Your task to perform on an android device: check android version Image 0: 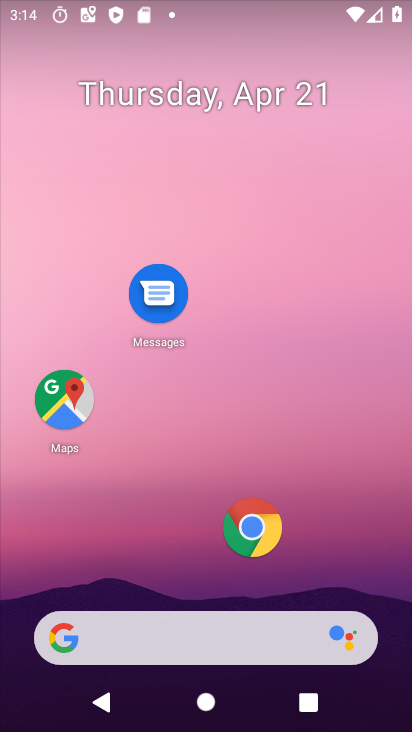
Step 0: drag from (191, 601) to (277, 365)
Your task to perform on an android device: check android version Image 1: 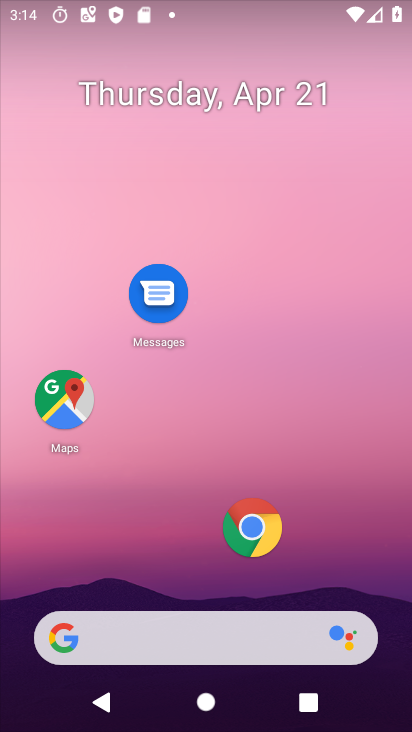
Step 1: drag from (230, 614) to (382, 100)
Your task to perform on an android device: check android version Image 2: 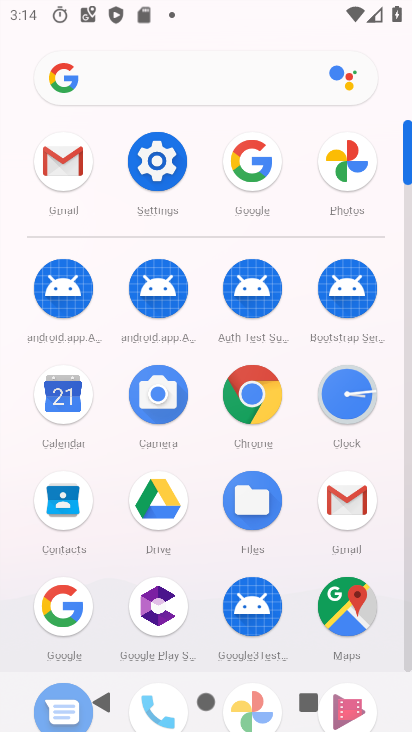
Step 2: click (164, 163)
Your task to perform on an android device: check android version Image 3: 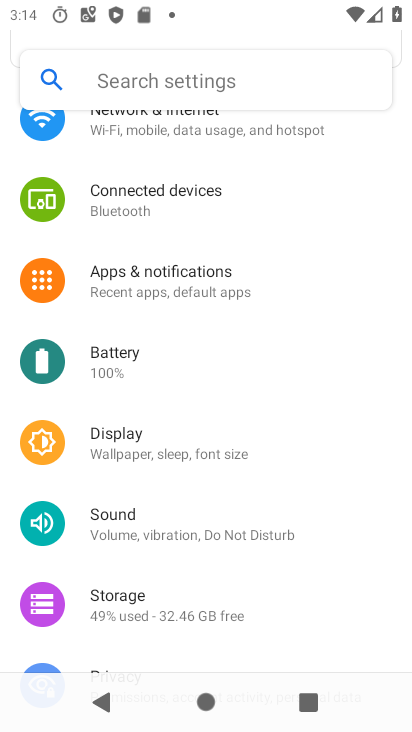
Step 3: drag from (184, 618) to (276, 281)
Your task to perform on an android device: check android version Image 4: 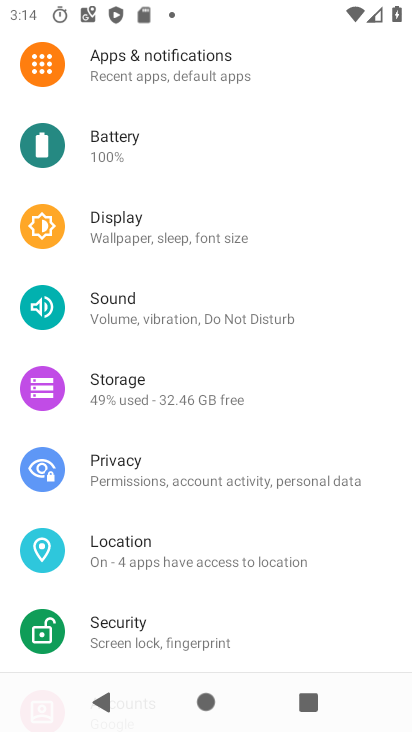
Step 4: drag from (208, 591) to (310, 267)
Your task to perform on an android device: check android version Image 5: 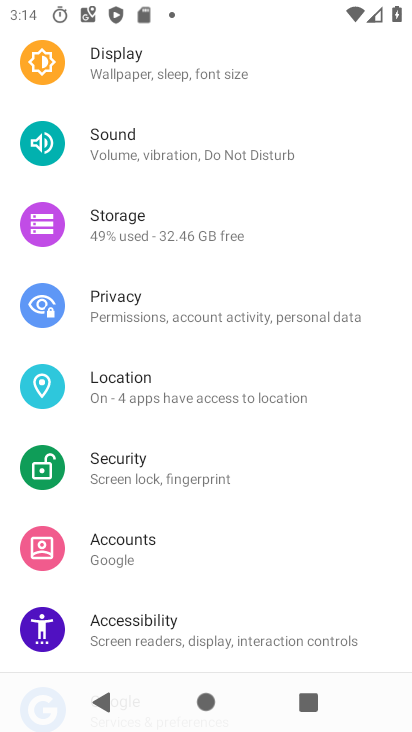
Step 5: drag from (240, 649) to (338, 327)
Your task to perform on an android device: check android version Image 6: 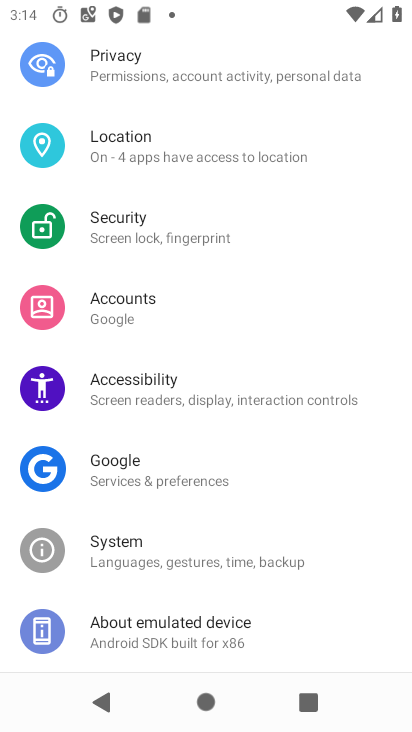
Step 6: click (222, 642)
Your task to perform on an android device: check android version Image 7: 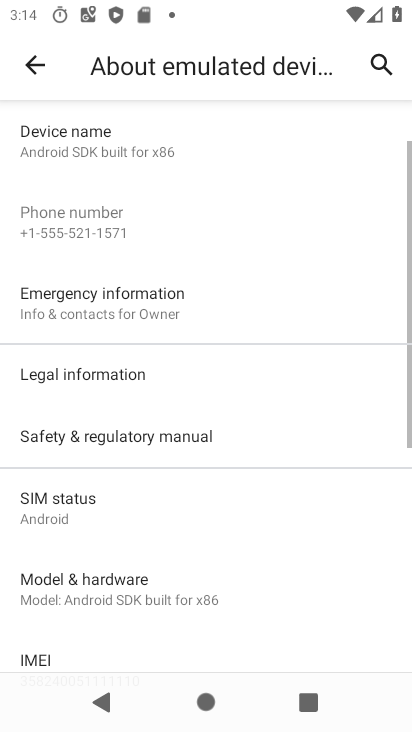
Step 7: drag from (100, 569) to (183, 294)
Your task to perform on an android device: check android version Image 8: 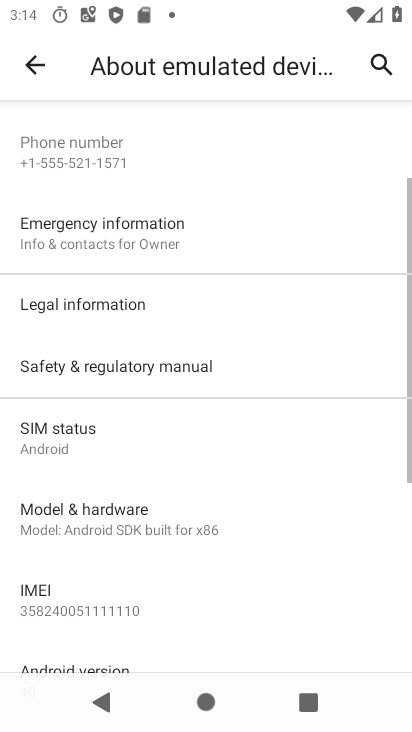
Step 8: drag from (75, 649) to (148, 387)
Your task to perform on an android device: check android version Image 9: 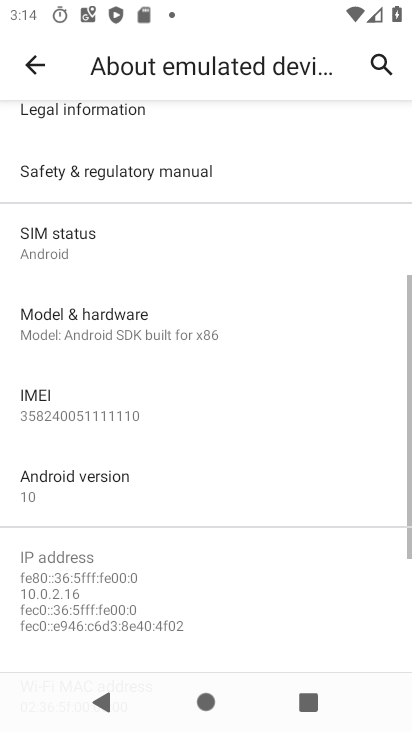
Step 9: click (68, 477)
Your task to perform on an android device: check android version Image 10: 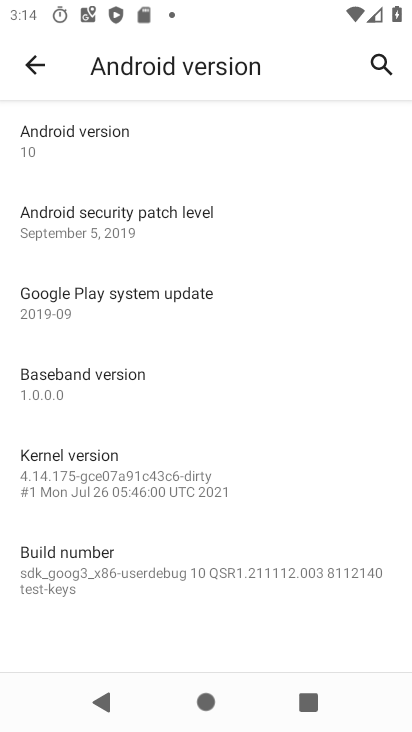
Step 10: task complete